Your task to perform on an android device: turn off notifications in google photos Image 0: 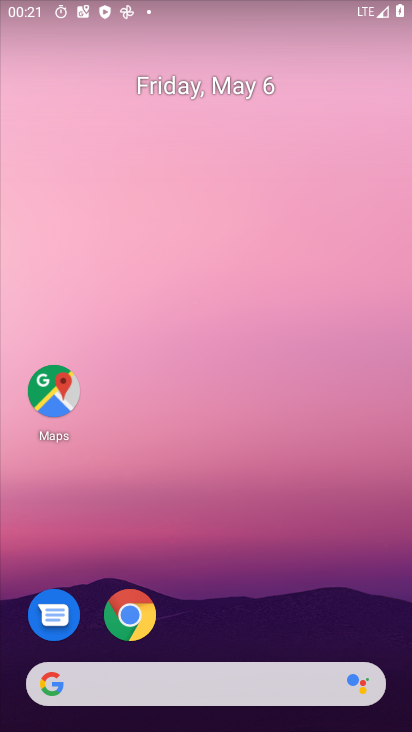
Step 0: drag from (217, 596) to (295, 75)
Your task to perform on an android device: turn off notifications in google photos Image 1: 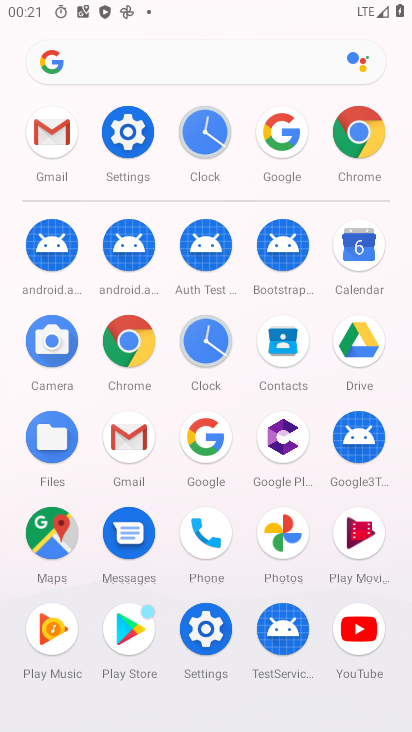
Step 1: click (292, 548)
Your task to perform on an android device: turn off notifications in google photos Image 2: 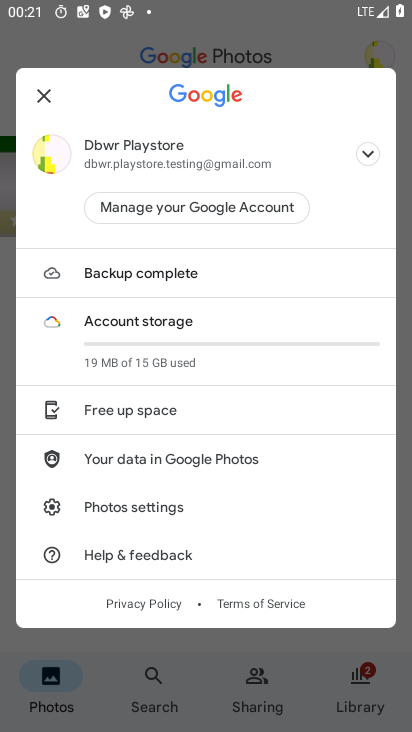
Step 2: click (147, 512)
Your task to perform on an android device: turn off notifications in google photos Image 3: 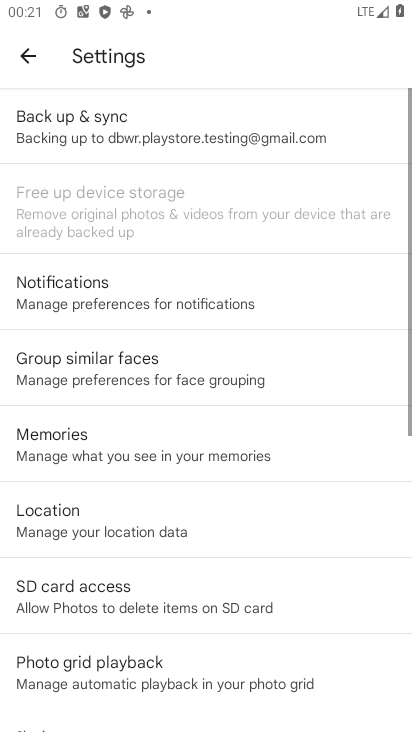
Step 3: click (91, 302)
Your task to perform on an android device: turn off notifications in google photos Image 4: 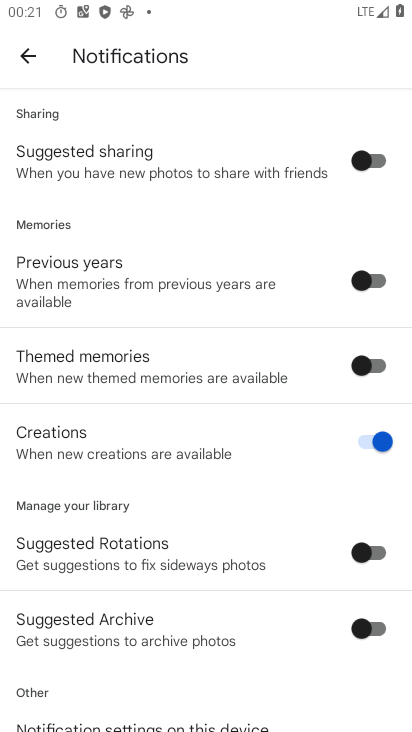
Step 4: drag from (173, 510) to (273, 111)
Your task to perform on an android device: turn off notifications in google photos Image 5: 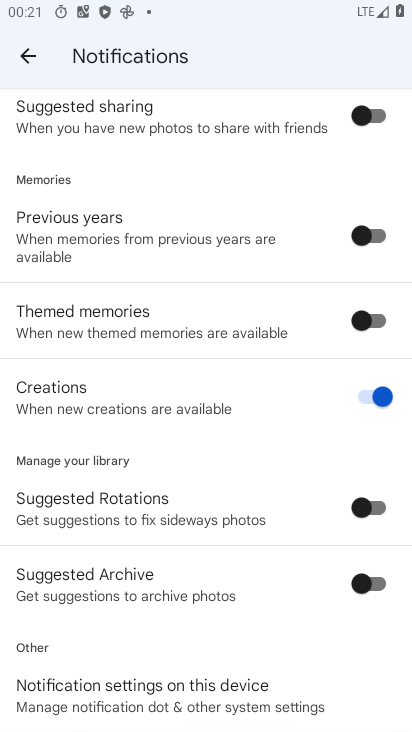
Step 5: click (204, 685)
Your task to perform on an android device: turn off notifications in google photos Image 6: 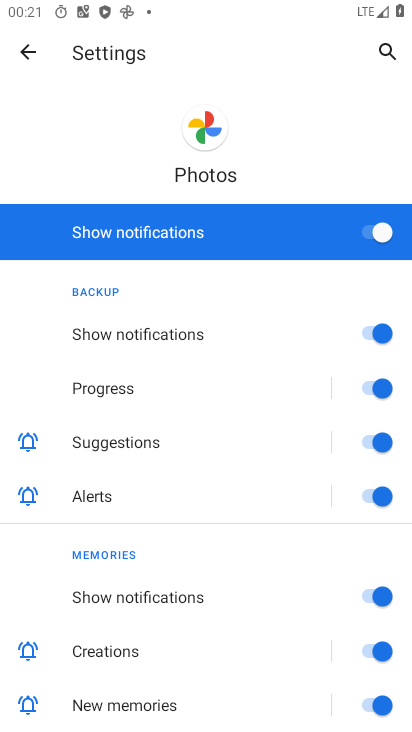
Step 6: click (373, 229)
Your task to perform on an android device: turn off notifications in google photos Image 7: 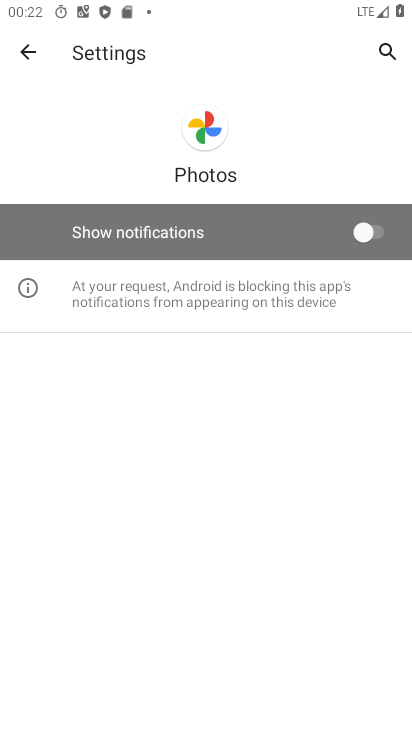
Step 7: task complete